Your task to perform on an android device: open app "eBay: The shopping marketplace" Image 0: 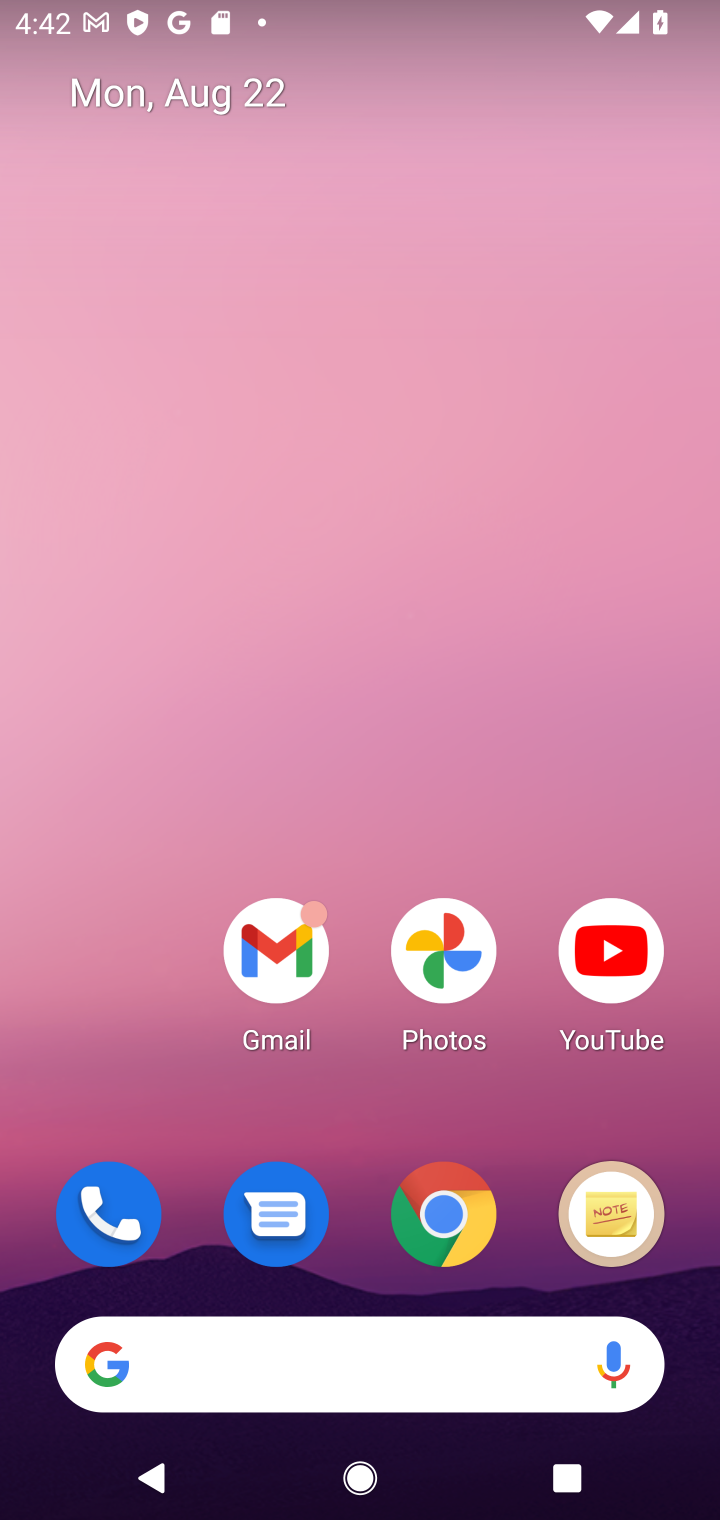
Step 0: drag from (519, 1261) to (534, 248)
Your task to perform on an android device: open app "eBay: The shopping marketplace" Image 1: 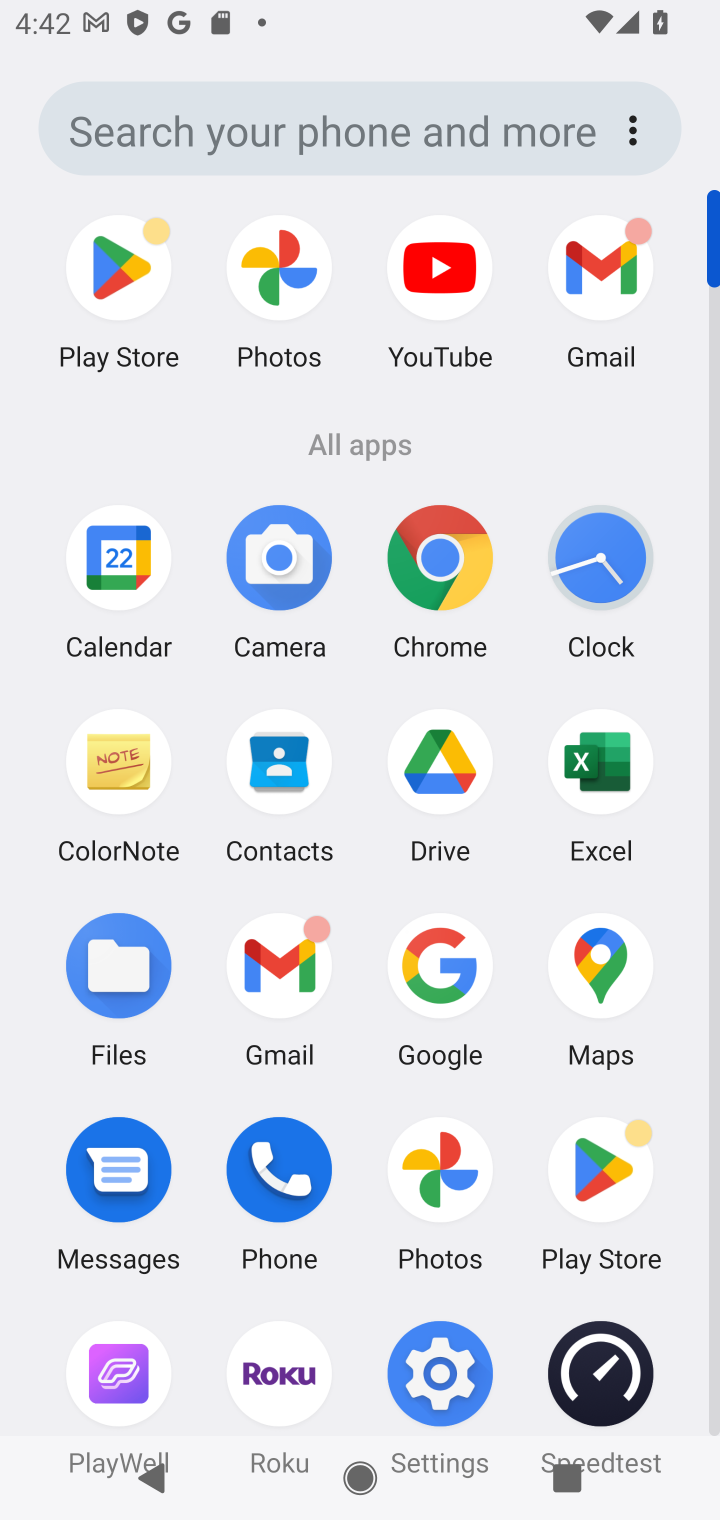
Step 1: click (600, 1167)
Your task to perform on an android device: open app "eBay: The shopping marketplace" Image 2: 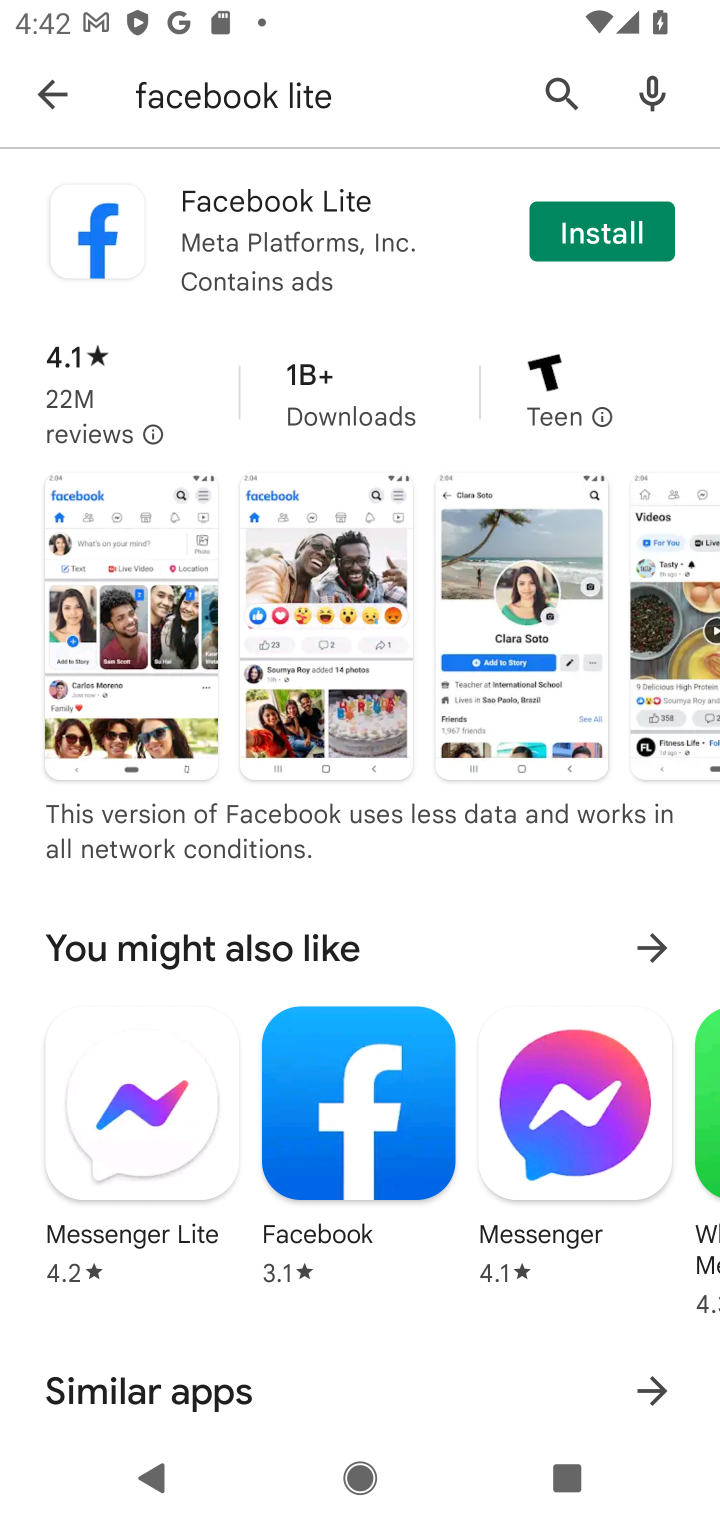
Step 2: click (554, 67)
Your task to perform on an android device: open app "eBay: The shopping marketplace" Image 3: 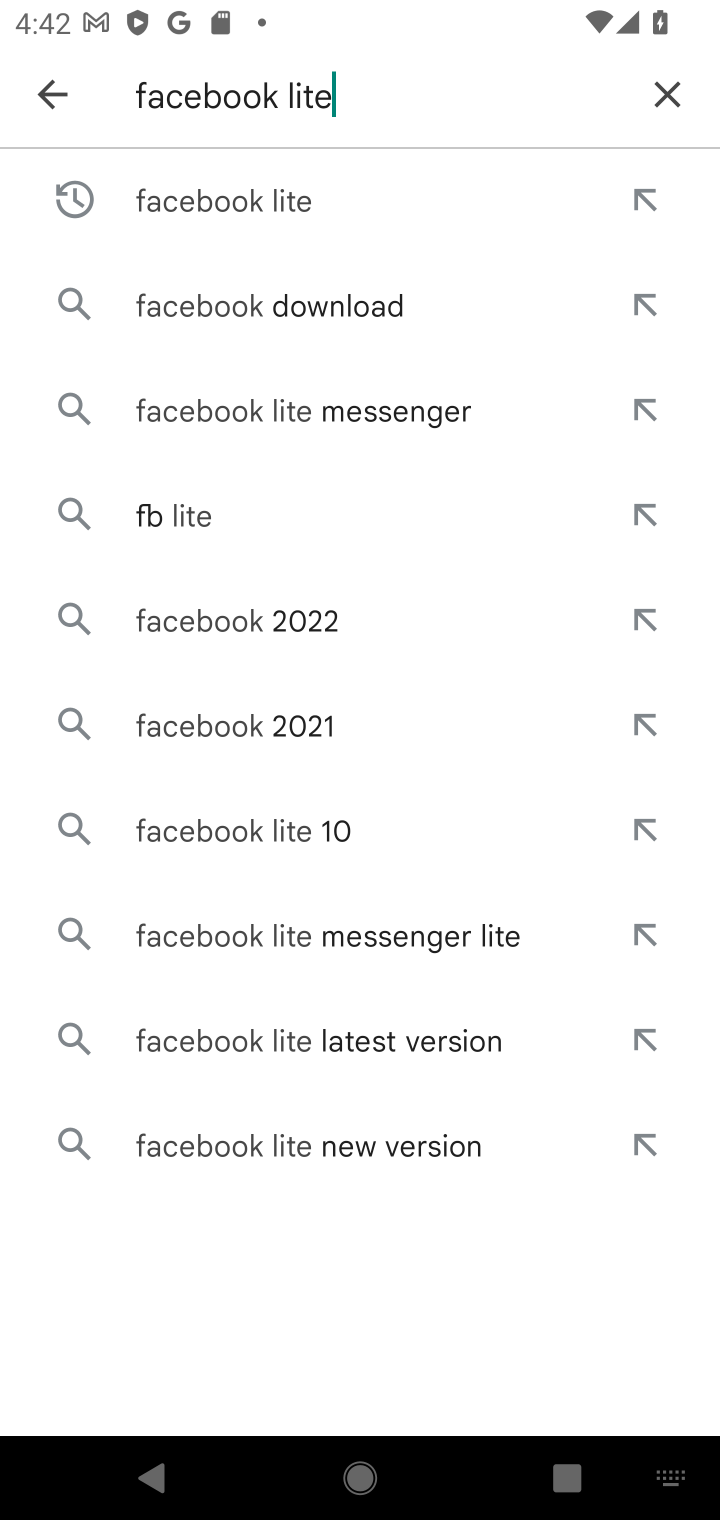
Step 3: click (661, 94)
Your task to perform on an android device: open app "eBay: The shopping marketplace" Image 4: 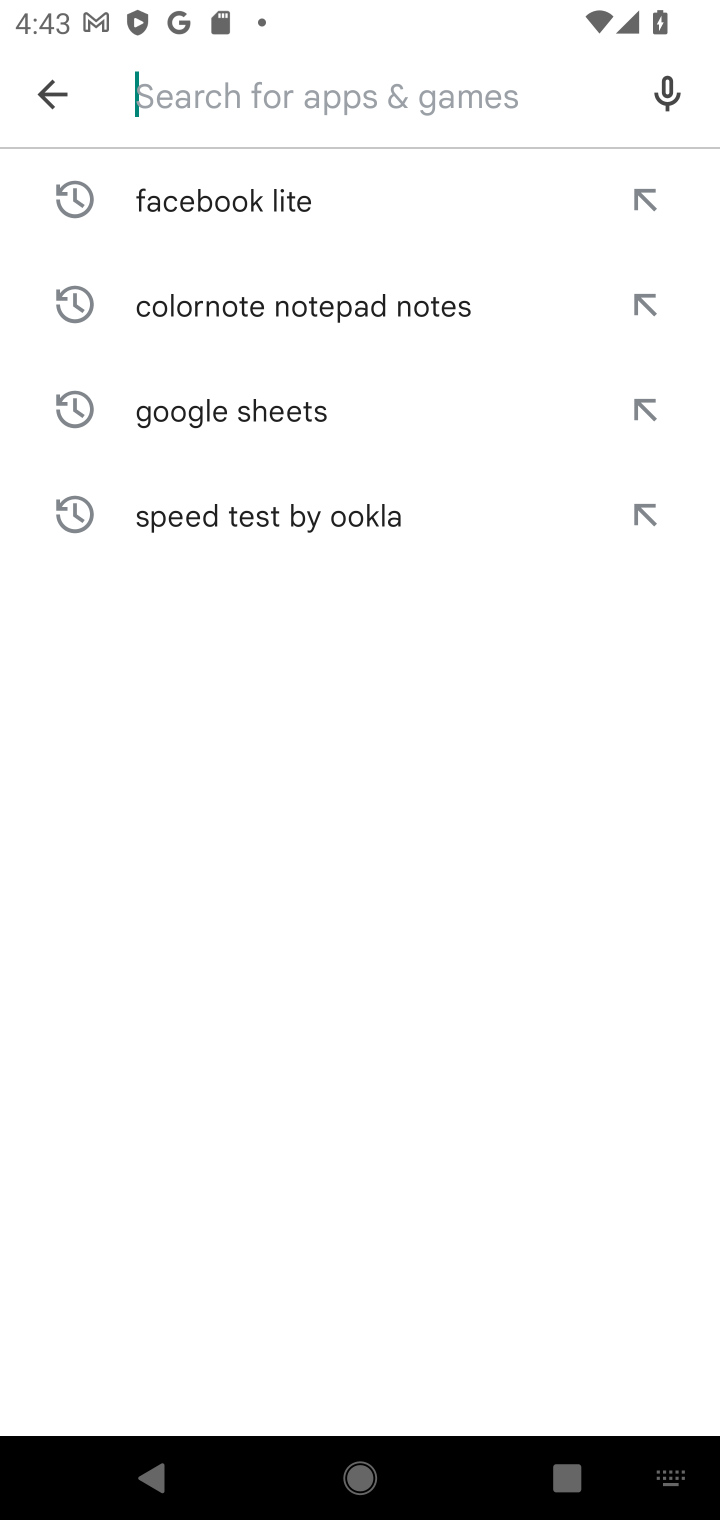
Step 4: type "eBay"
Your task to perform on an android device: open app "eBay: The shopping marketplace" Image 5: 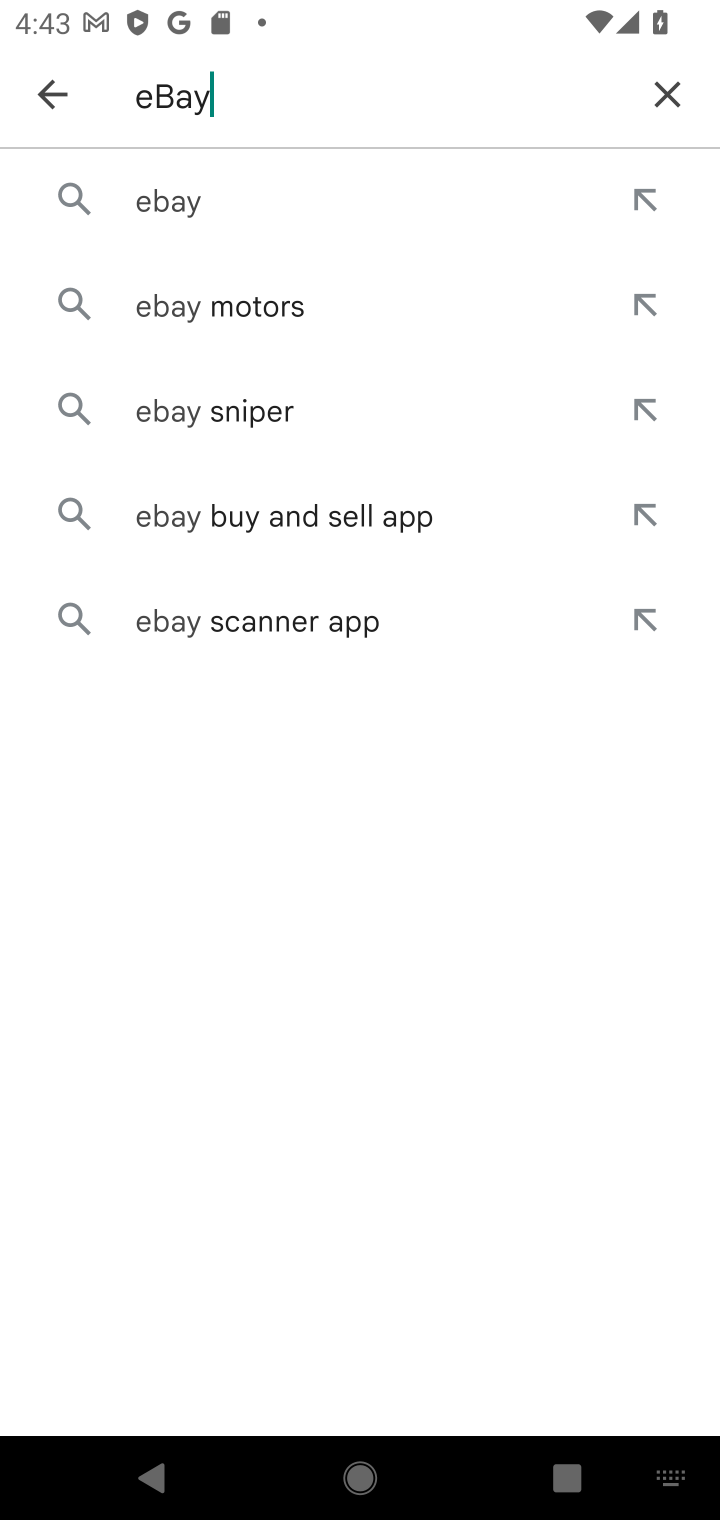
Step 5: click (168, 196)
Your task to perform on an android device: open app "eBay: The shopping marketplace" Image 6: 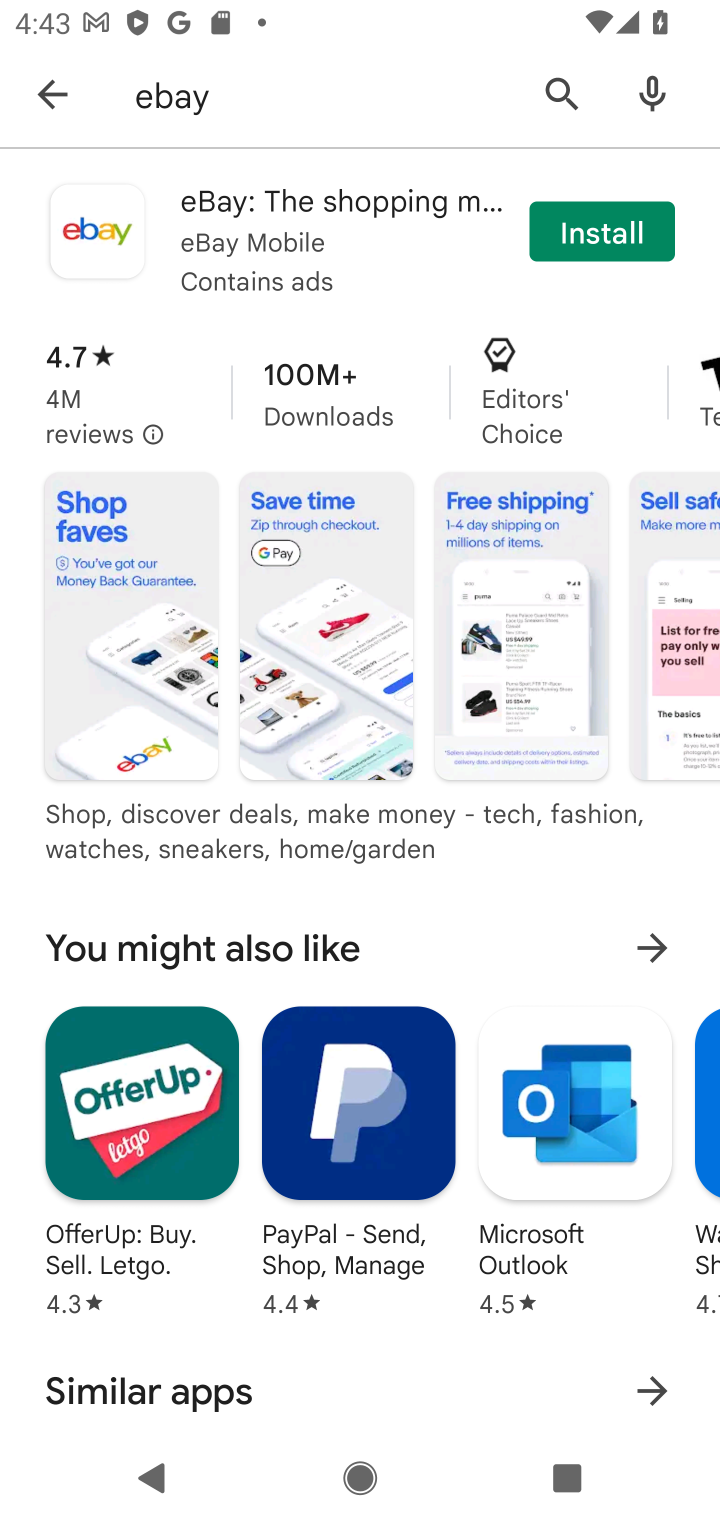
Step 6: task complete